Your task to perform on an android device: turn off location Image 0: 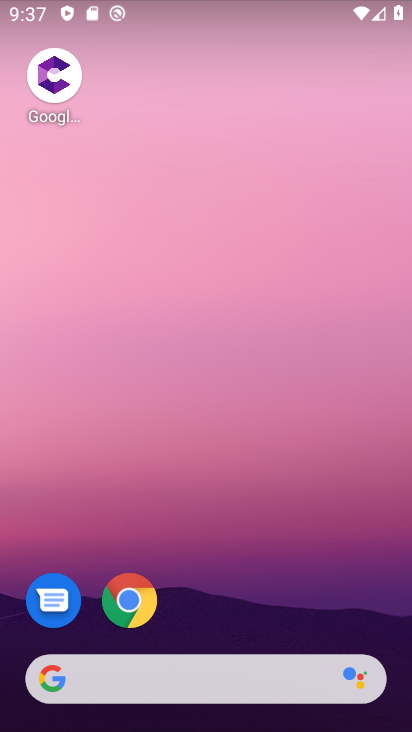
Step 0: drag from (184, 584) to (252, 182)
Your task to perform on an android device: turn off location Image 1: 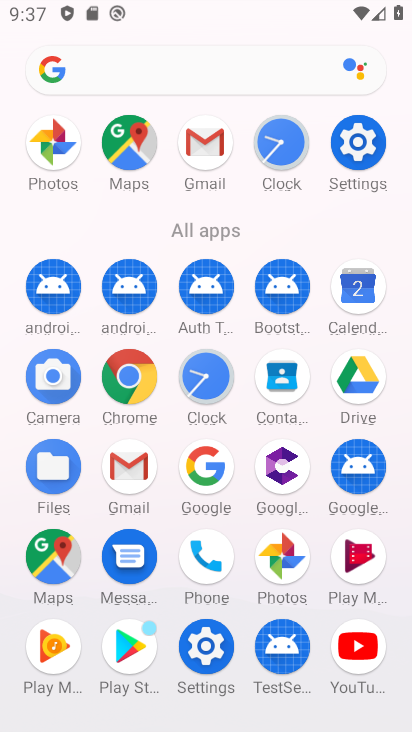
Step 1: drag from (158, 558) to (193, 288)
Your task to perform on an android device: turn off location Image 2: 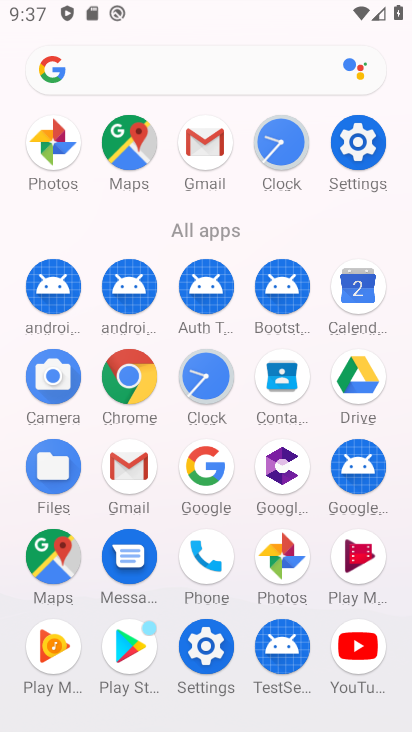
Step 2: click (199, 636)
Your task to perform on an android device: turn off location Image 3: 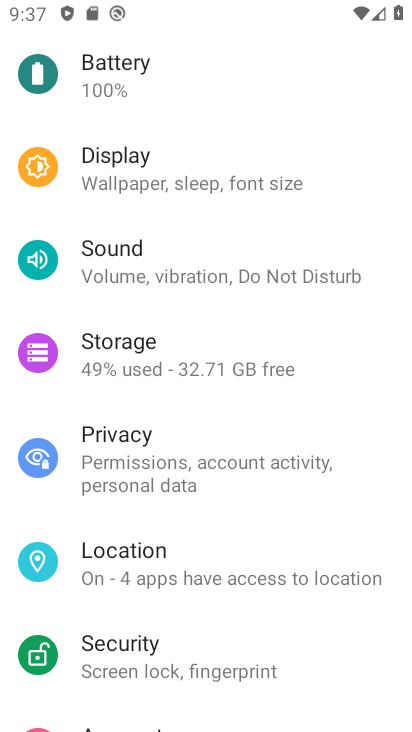
Step 3: click (200, 576)
Your task to perform on an android device: turn off location Image 4: 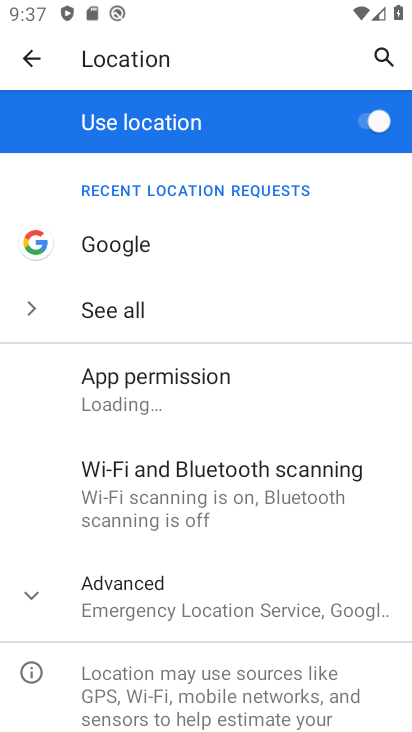
Step 4: click (362, 110)
Your task to perform on an android device: turn off location Image 5: 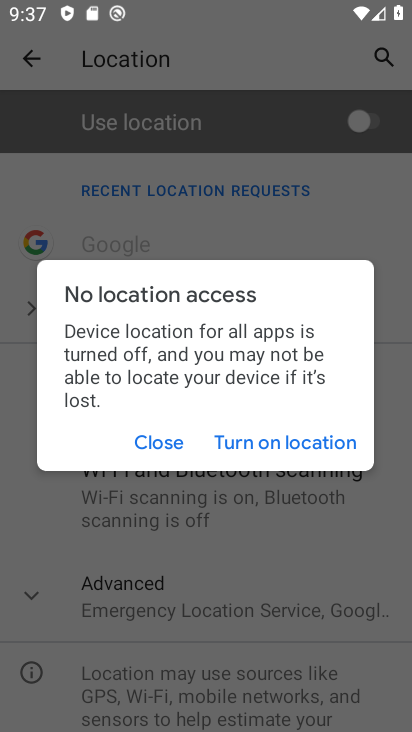
Step 5: click (171, 455)
Your task to perform on an android device: turn off location Image 6: 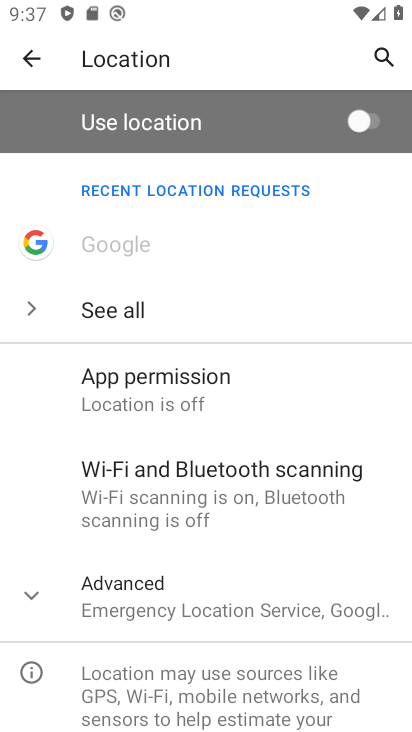
Step 6: task complete